Your task to perform on an android device: turn on improve location accuracy Image 0: 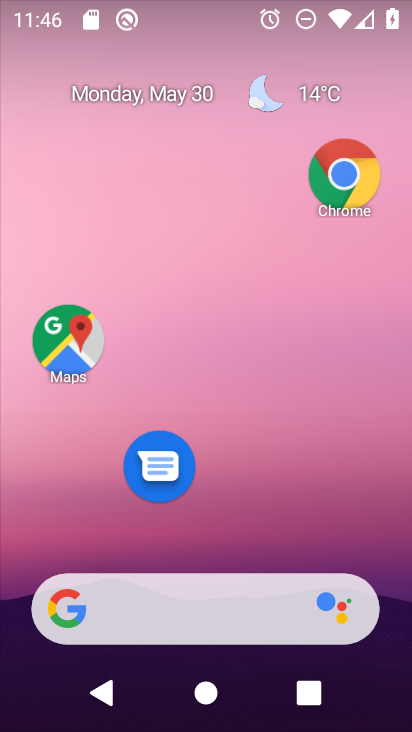
Step 0: drag from (270, 491) to (208, 88)
Your task to perform on an android device: turn on improve location accuracy Image 1: 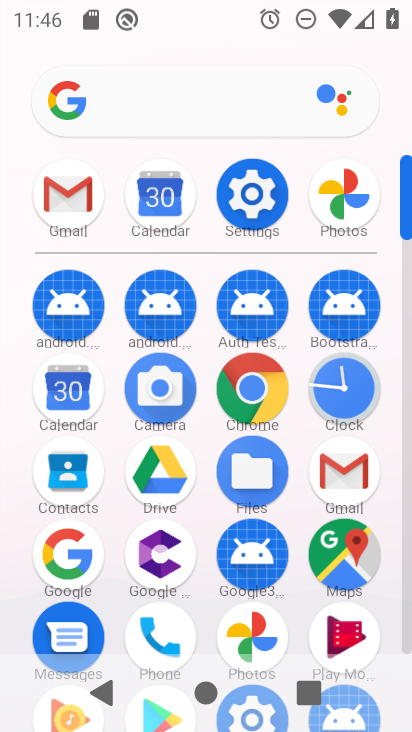
Step 1: click (242, 207)
Your task to perform on an android device: turn on improve location accuracy Image 2: 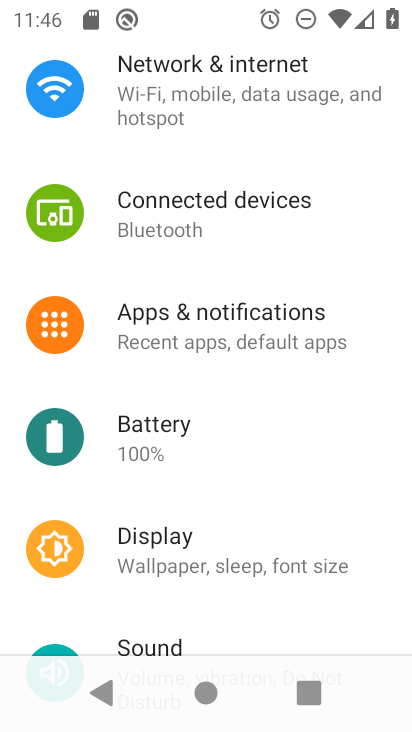
Step 2: drag from (216, 497) to (216, 309)
Your task to perform on an android device: turn on improve location accuracy Image 3: 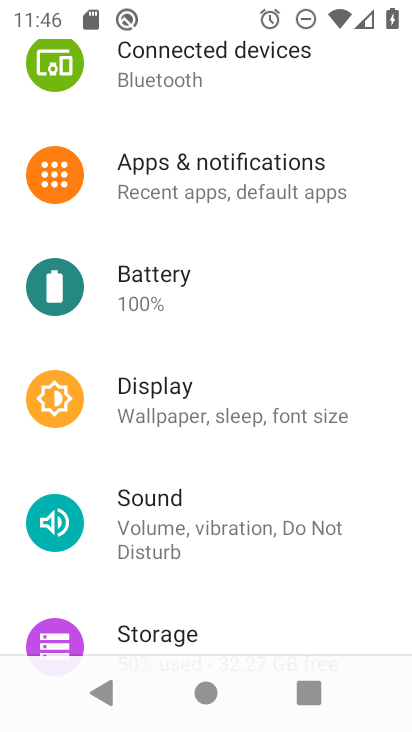
Step 3: drag from (223, 506) to (244, 241)
Your task to perform on an android device: turn on improve location accuracy Image 4: 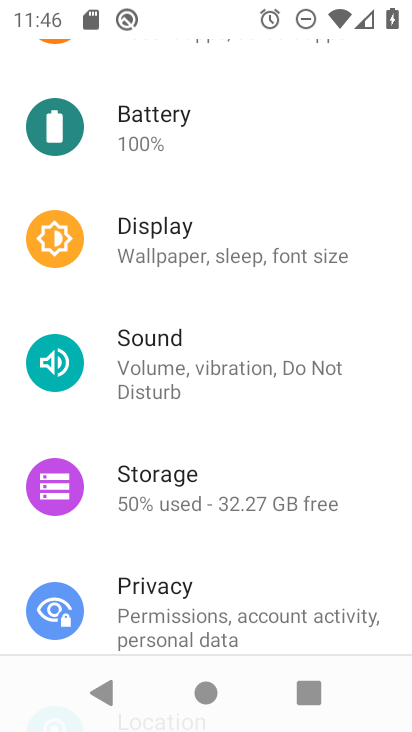
Step 4: drag from (222, 588) to (213, 304)
Your task to perform on an android device: turn on improve location accuracy Image 5: 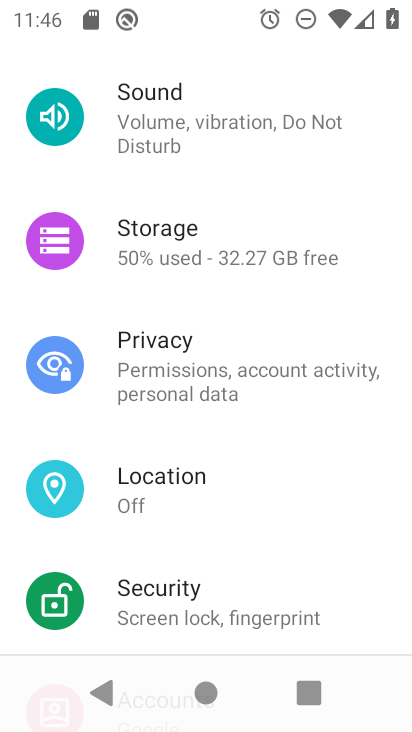
Step 5: click (175, 480)
Your task to perform on an android device: turn on improve location accuracy Image 6: 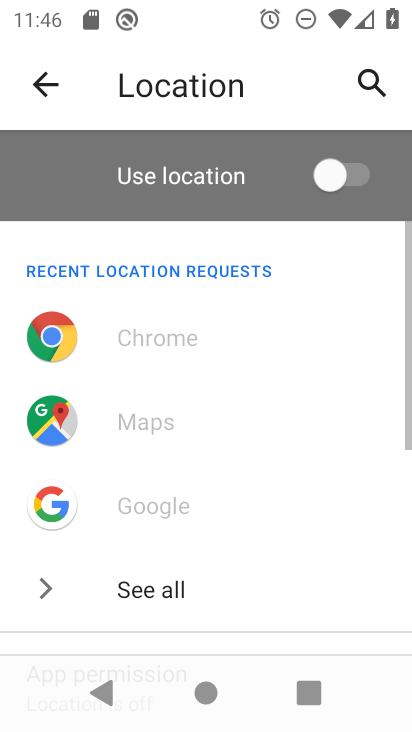
Step 6: drag from (244, 502) to (231, 228)
Your task to perform on an android device: turn on improve location accuracy Image 7: 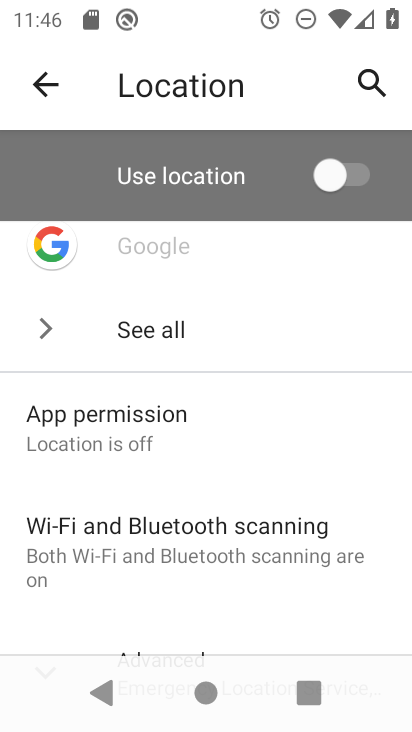
Step 7: drag from (139, 492) to (123, 228)
Your task to perform on an android device: turn on improve location accuracy Image 8: 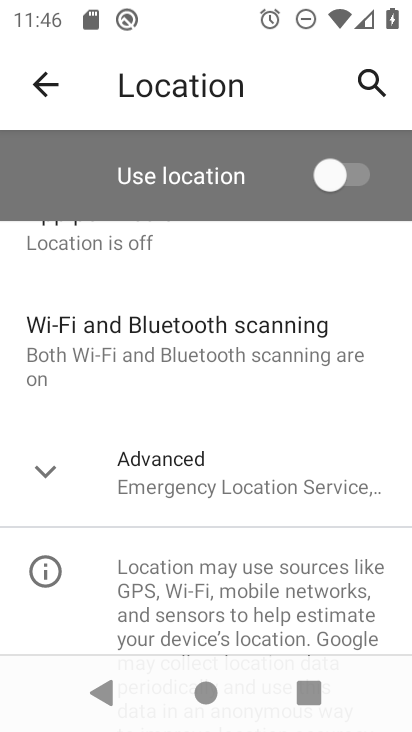
Step 8: click (164, 482)
Your task to perform on an android device: turn on improve location accuracy Image 9: 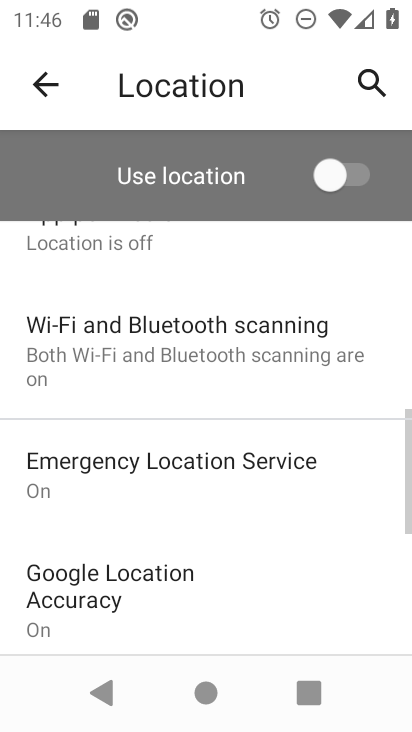
Step 9: drag from (231, 583) to (223, 328)
Your task to perform on an android device: turn on improve location accuracy Image 10: 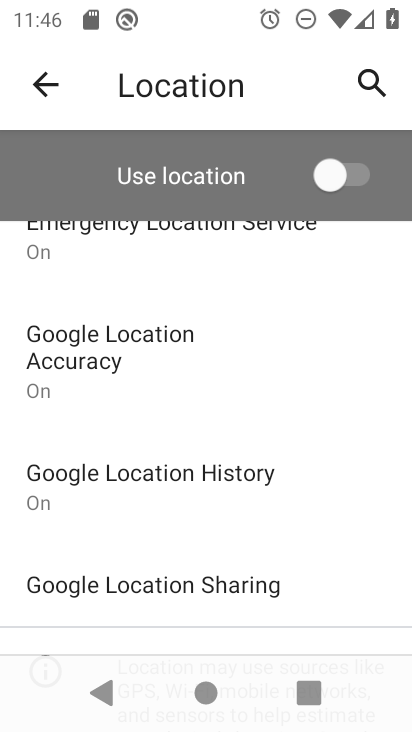
Step 10: click (171, 361)
Your task to perform on an android device: turn on improve location accuracy Image 11: 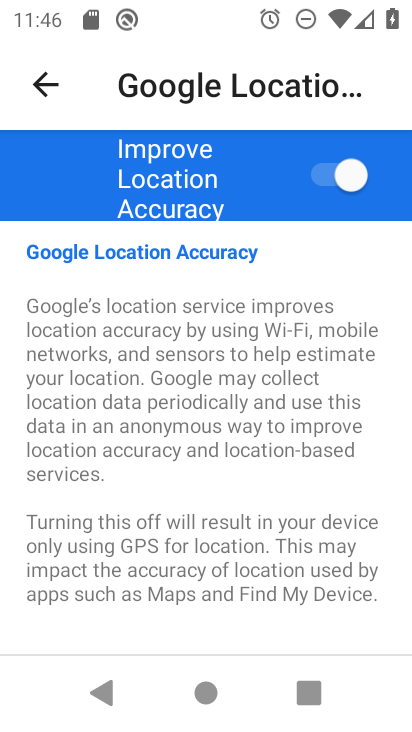
Step 11: task complete